Your task to perform on an android device: Show me productivity apps on the Play Store Image 0: 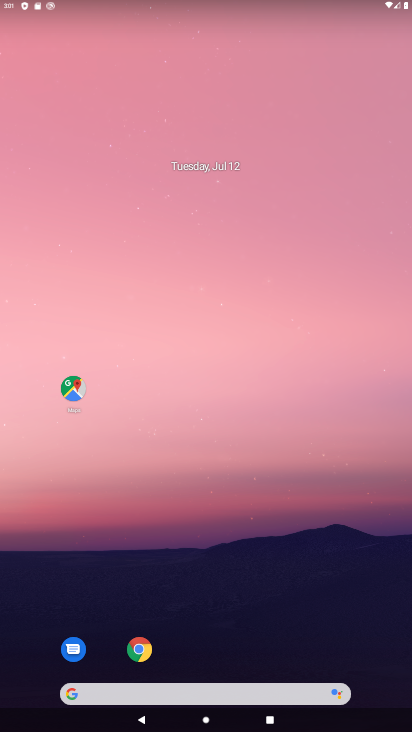
Step 0: drag from (198, 652) to (153, 135)
Your task to perform on an android device: Show me productivity apps on the Play Store Image 1: 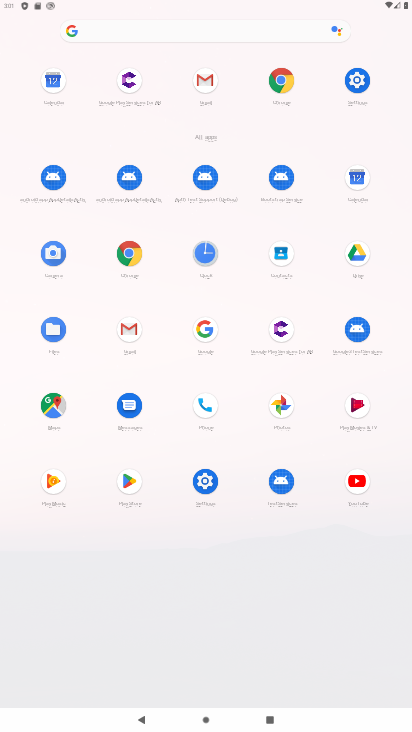
Step 1: click (132, 478)
Your task to perform on an android device: Show me productivity apps on the Play Store Image 2: 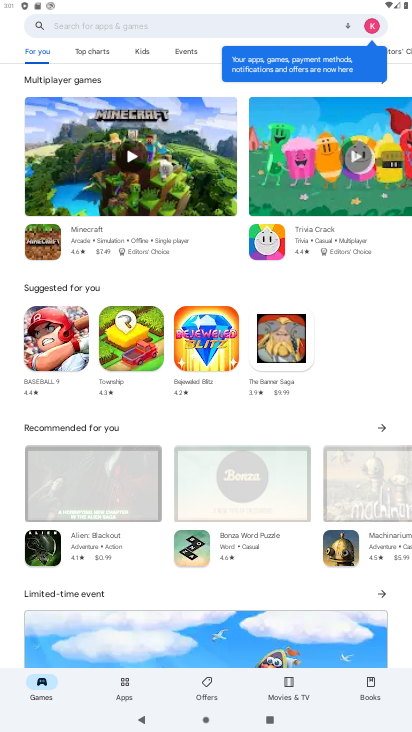
Step 2: click (127, 693)
Your task to perform on an android device: Show me productivity apps on the Play Store Image 3: 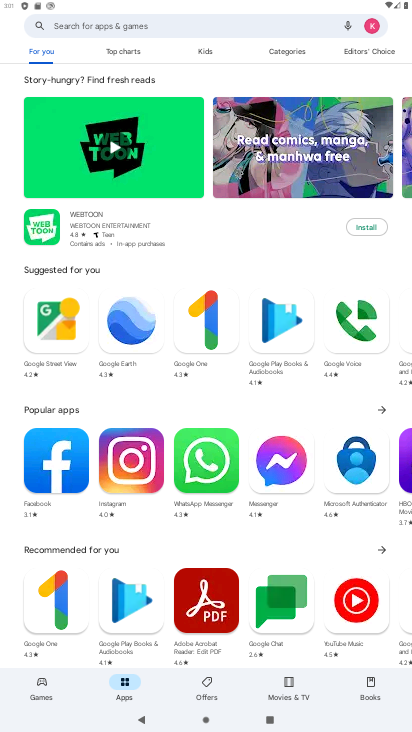
Step 3: task complete